Your task to perform on an android device: clear all cookies in the chrome app Image 0: 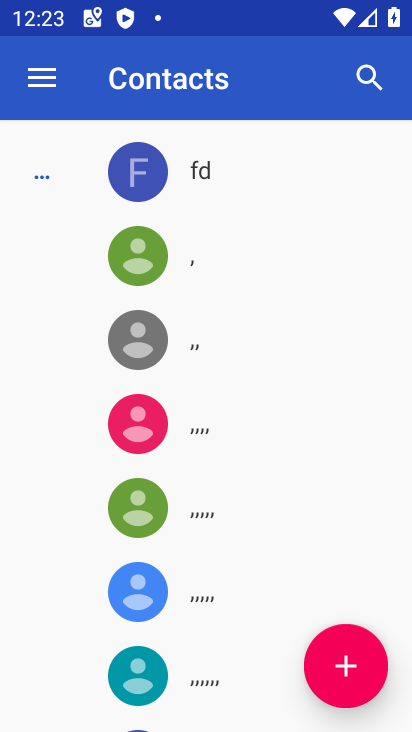
Step 0: press home button
Your task to perform on an android device: clear all cookies in the chrome app Image 1: 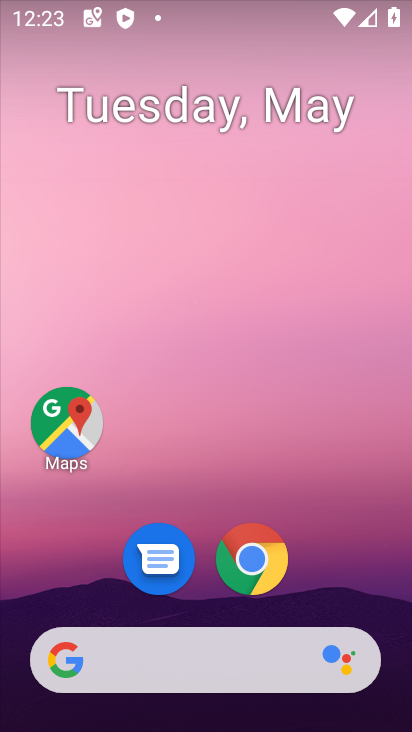
Step 1: click (270, 564)
Your task to perform on an android device: clear all cookies in the chrome app Image 2: 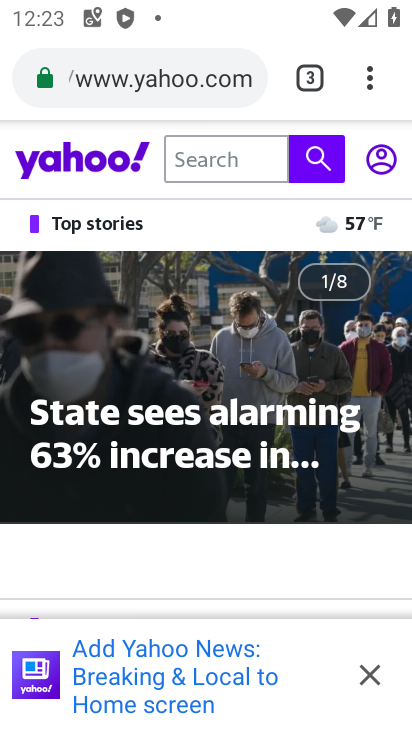
Step 2: click (381, 73)
Your task to perform on an android device: clear all cookies in the chrome app Image 3: 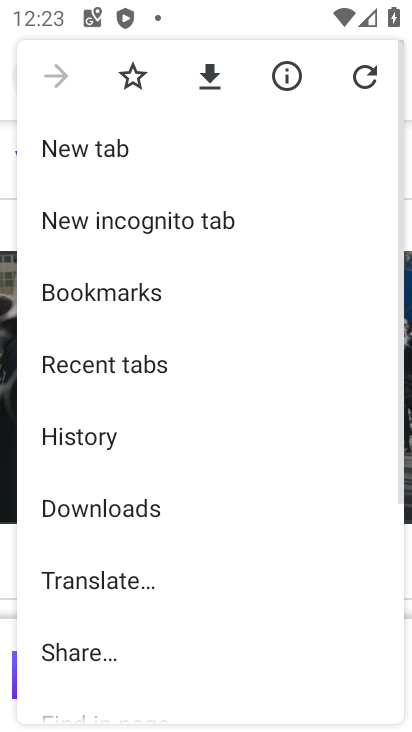
Step 3: drag from (167, 602) to (203, 337)
Your task to perform on an android device: clear all cookies in the chrome app Image 4: 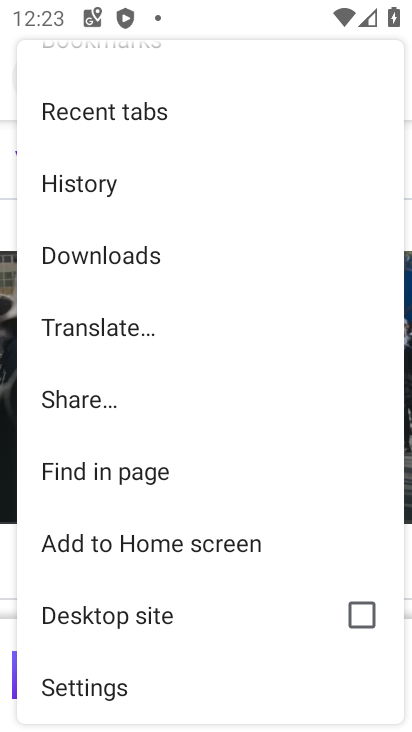
Step 4: click (200, 686)
Your task to perform on an android device: clear all cookies in the chrome app Image 5: 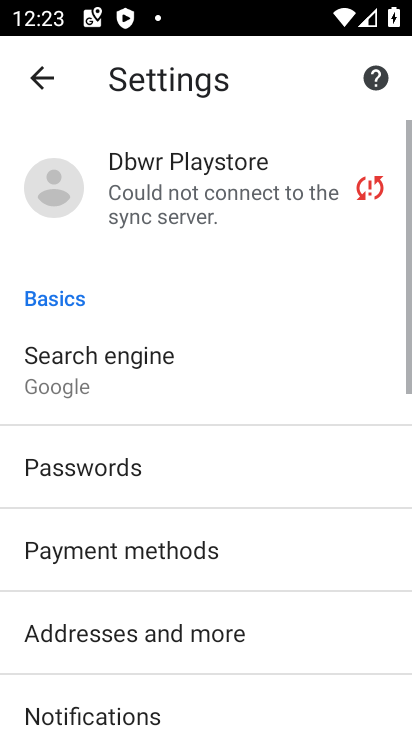
Step 5: drag from (200, 686) to (217, 250)
Your task to perform on an android device: clear all cookies in the chrome app Image 6: 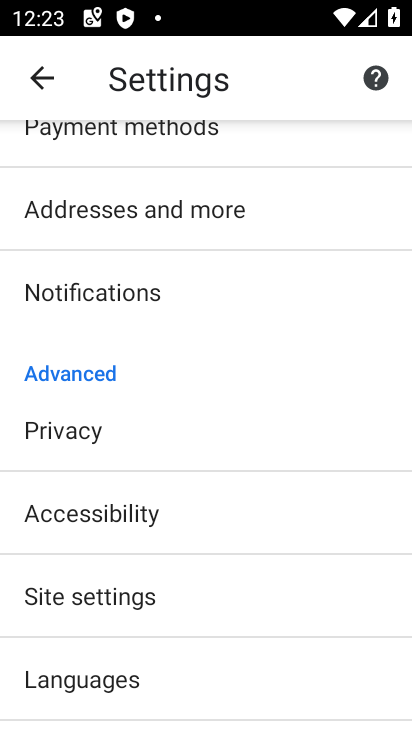
Step 6: drag from (67, 655) to (111, 315)
Your task to perform on an android device: clear all cookies in the chrome app Image 7: 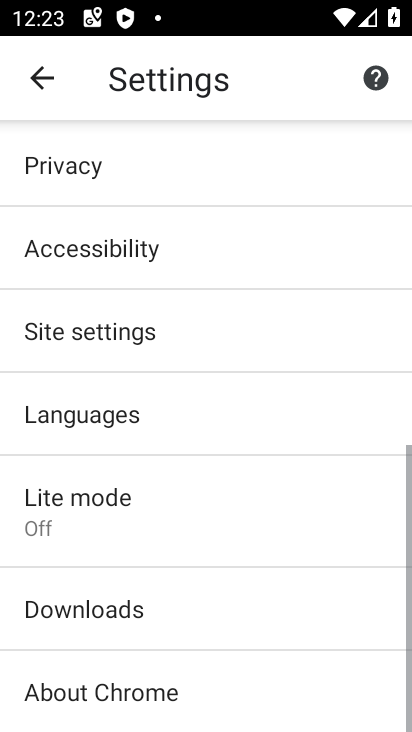
Step 7: click (34, 73)
Your task to perform on an android device: clear all cookies in the chrome app Image 8: 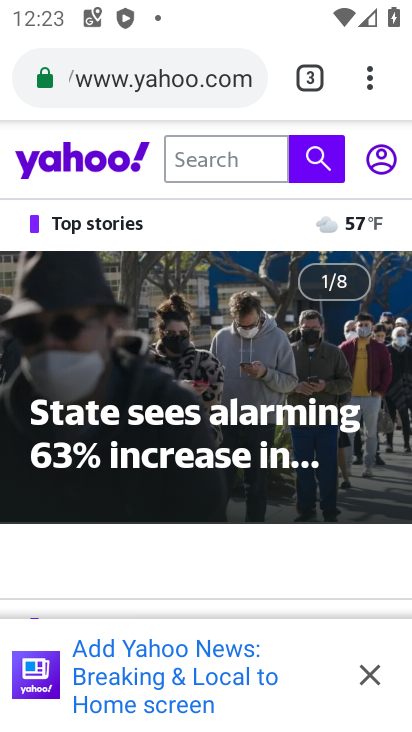
Step 8: click (385, 82)
Your task to perform on an android device: clear all cookies in the chrome app Image 9: 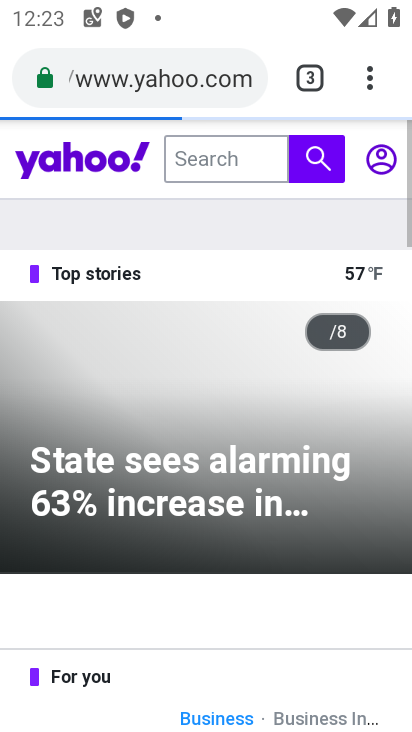
Step 9: click (361, 93)
Your task to perform on an android device: clear all cookies in the chrome app Image 10: 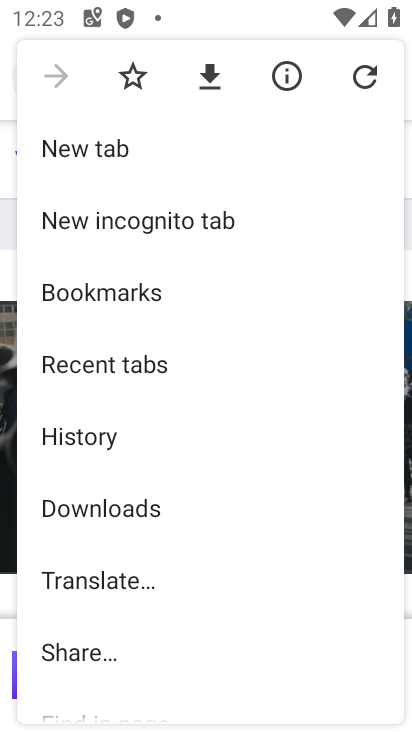
Step 10: click (111, 450)
Your task to perform on an android device: clear all cookies in the chrome app Image 11: 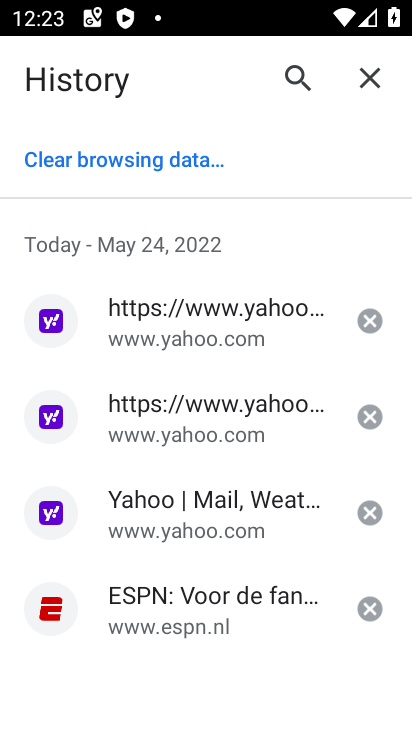
Step 11: click (157, 175)
Your task to perform on an android device: clear all cookies in the chrome app Image 12: 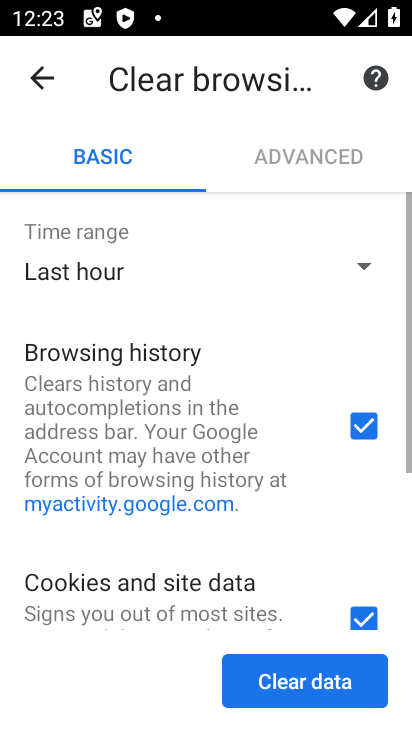
Step 12: click (348, 445)
Your task to perform on an android device: clear all cookies in the chrome app Image 13: 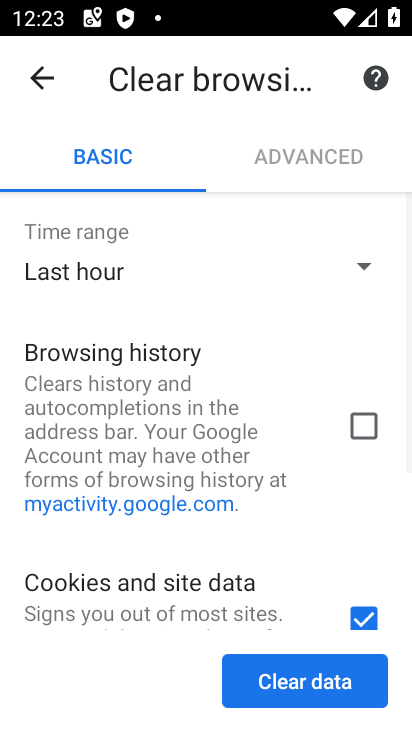
Step 13: click (346, 692)
Your task to perform on an android device: clear all cookies in the chrome app Image 14: 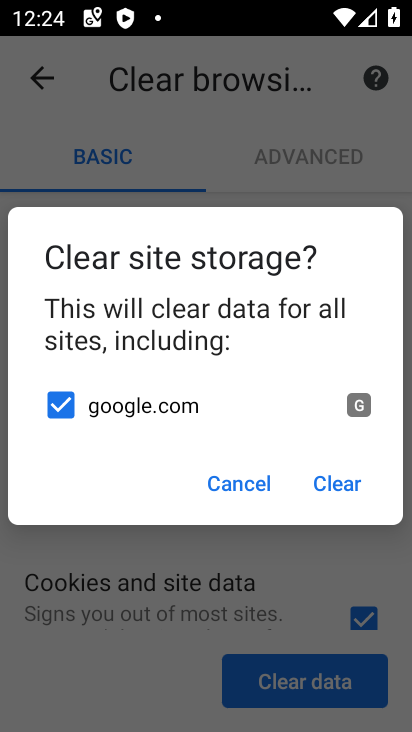
Step 14: click (333, 473)
Your task to perform on an android device: clear all cookies in the chrome app Image 15: 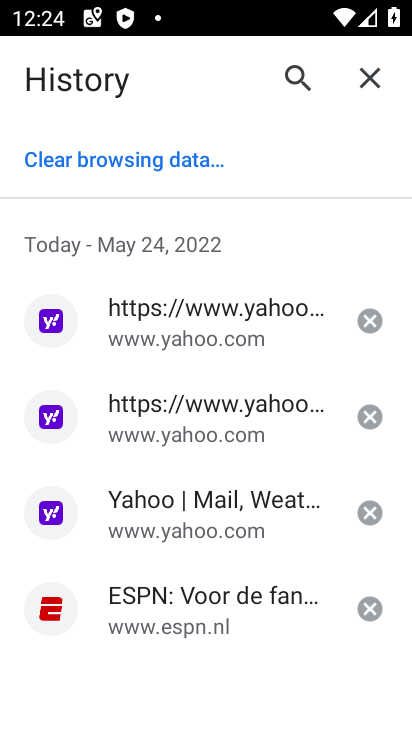
Step 15: task complete